Your task to perform on an android device: open the mobile data screen to see how much data has been used Image 0: 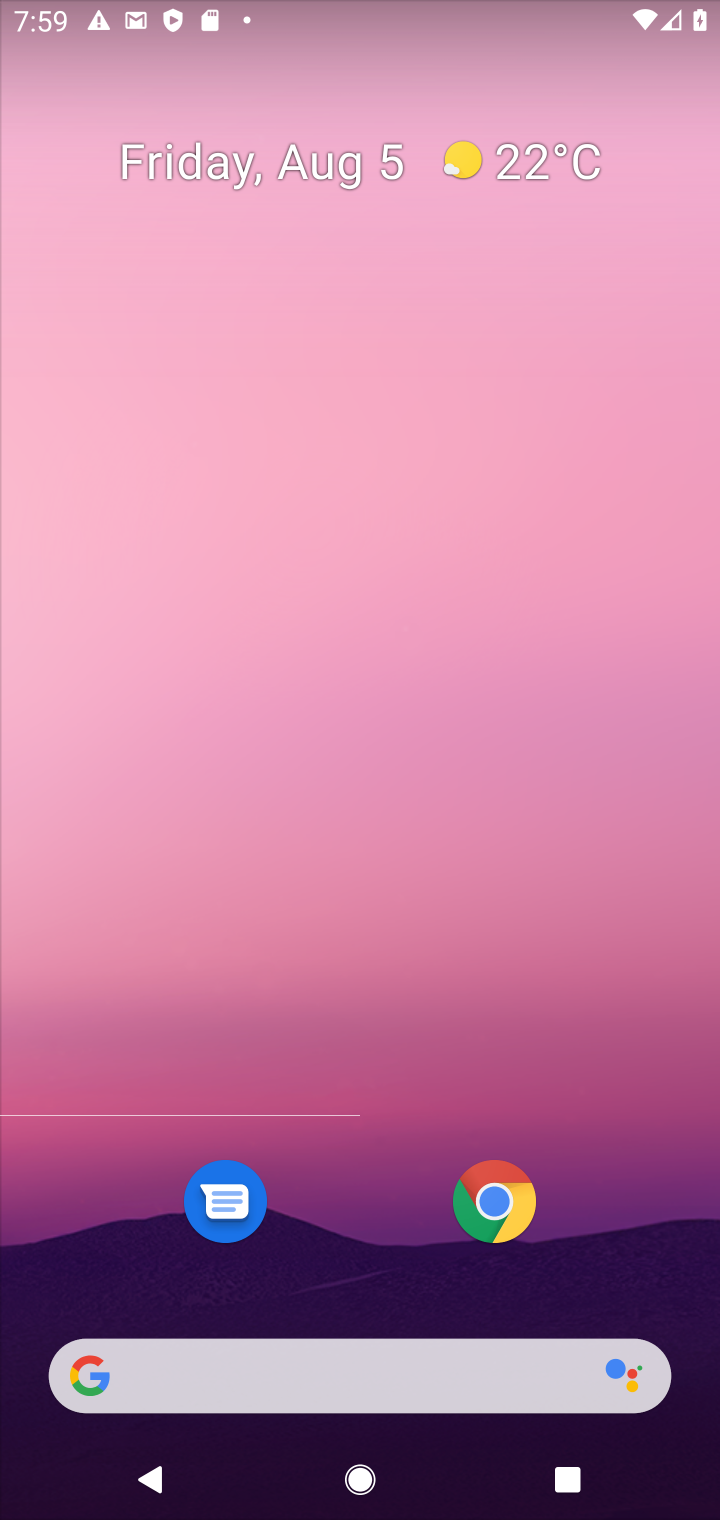
Step 0: press home button
Your task to perform on an android device: open the mobile data screen to see how much data has been used Image 1: 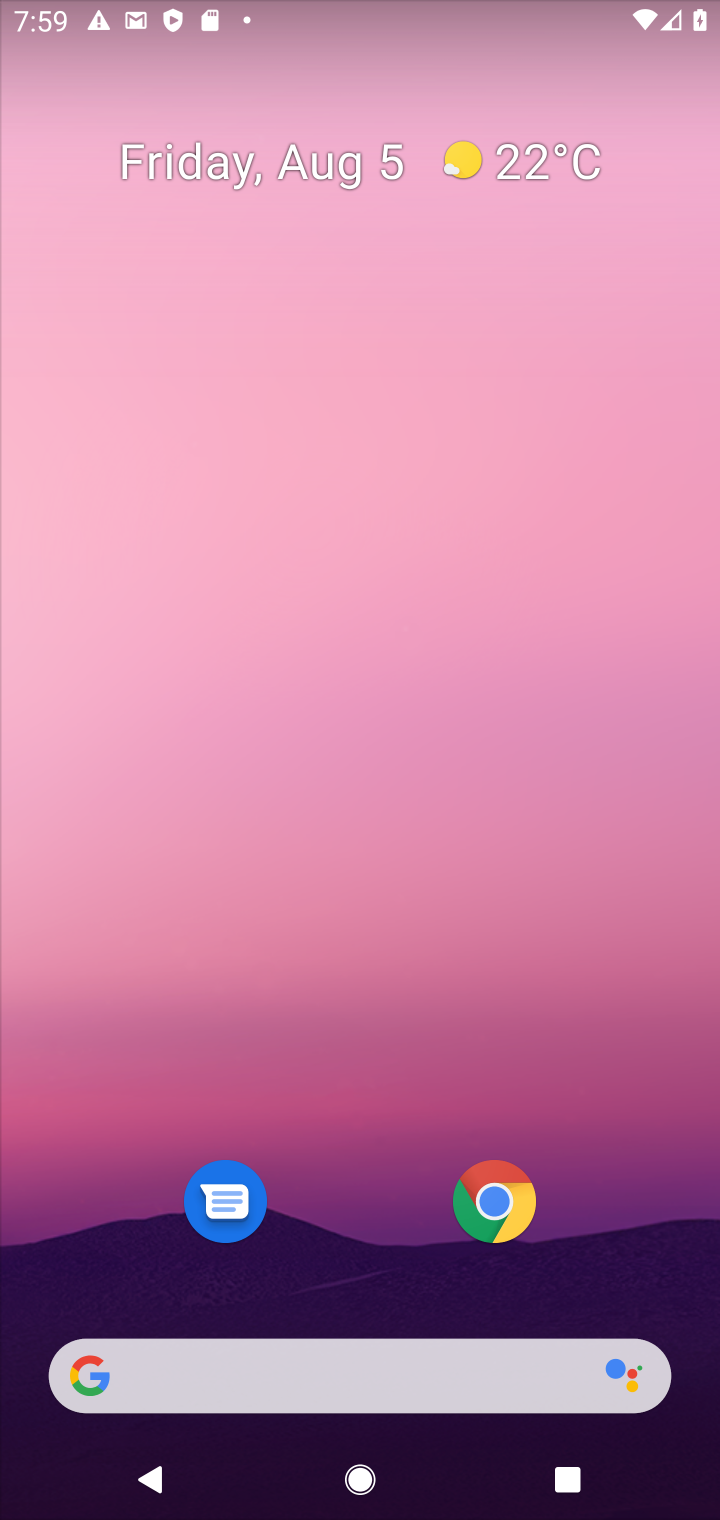
Step 1: press home button
Your task to perform on an android device: open the mobile data screen to see how much data has been used Image 2: 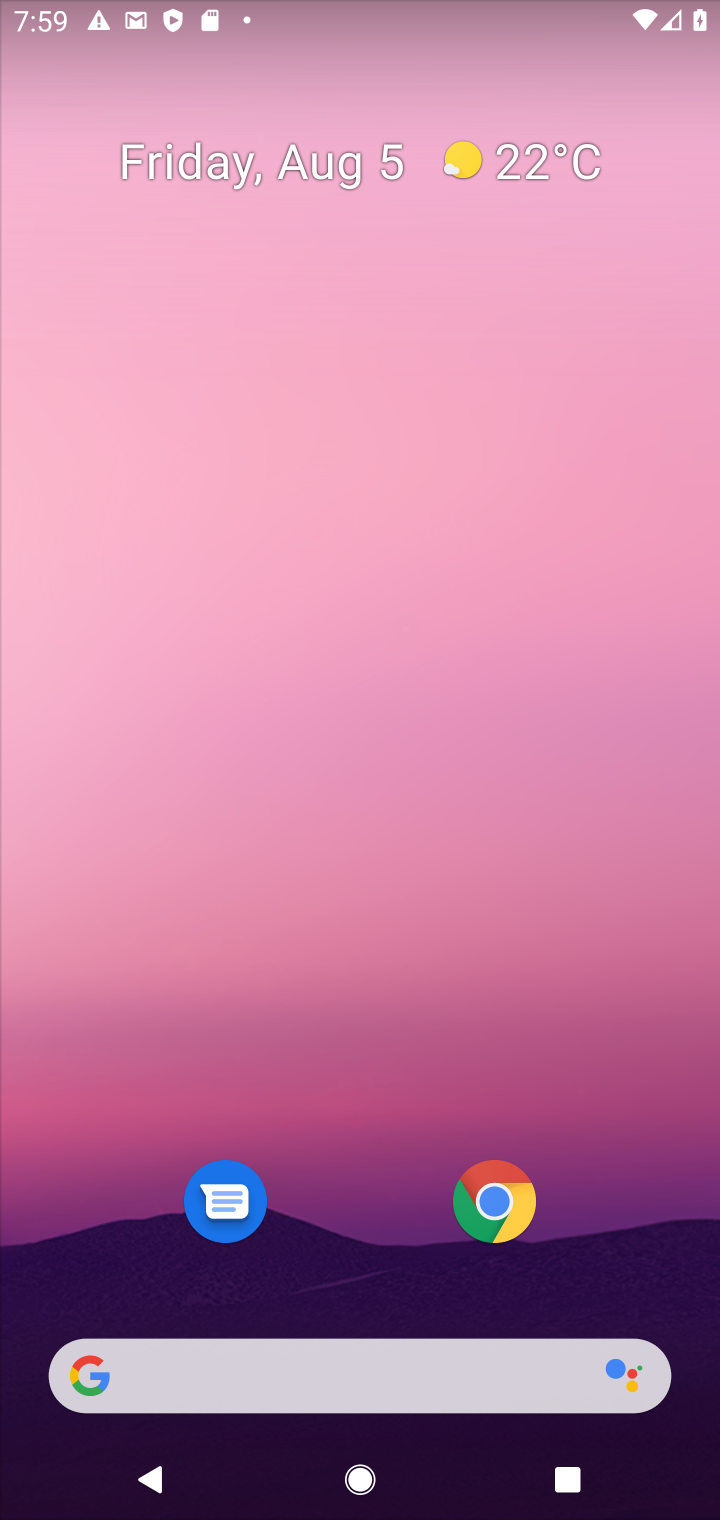
Step 2: drag from (620, 58) to (451, 930)
Your task to perform on an android device: open the mobile data screen to see how much data has been used Image 3: 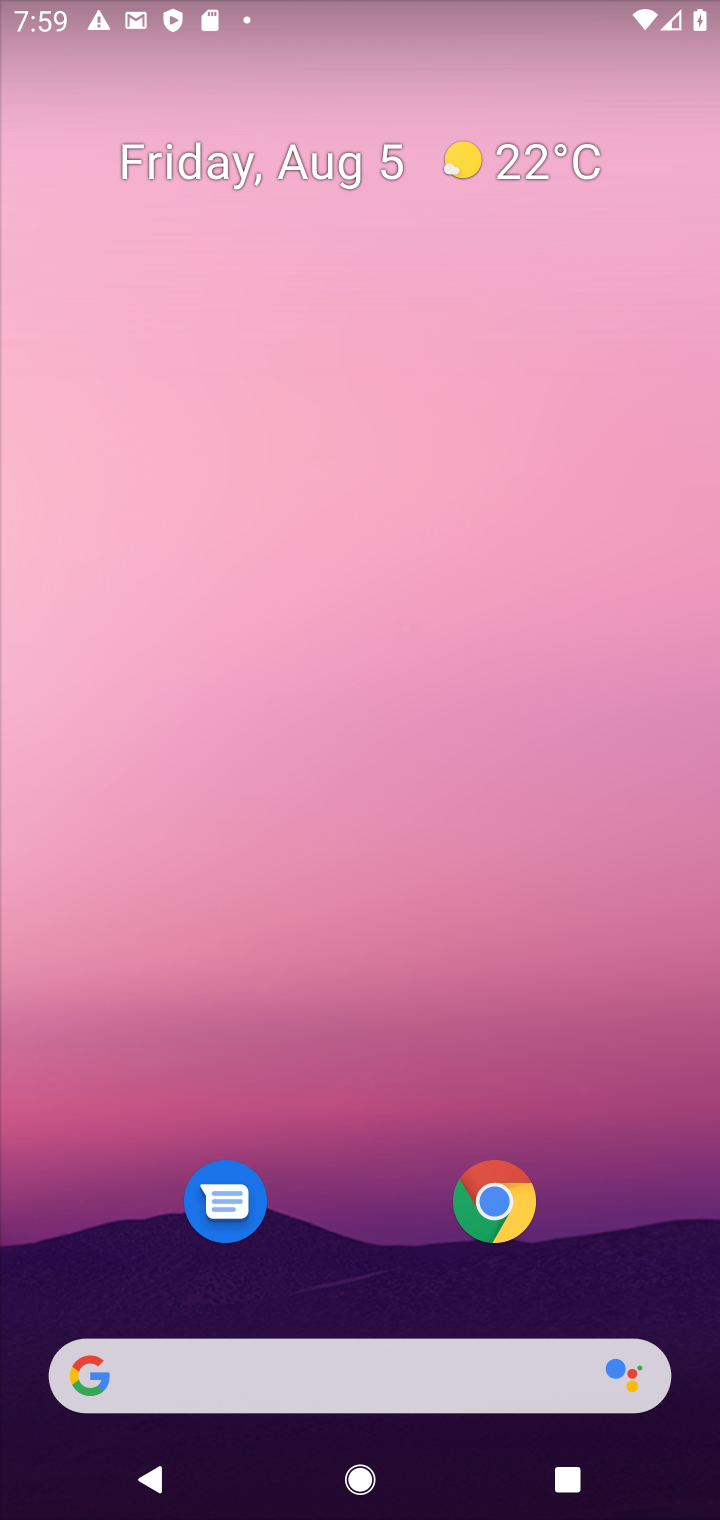
Step 3: drag from (150, 18) to (578, 1502)
Your task to perform on an android device: open the mobile data screen to see how much data has been used Image 4: 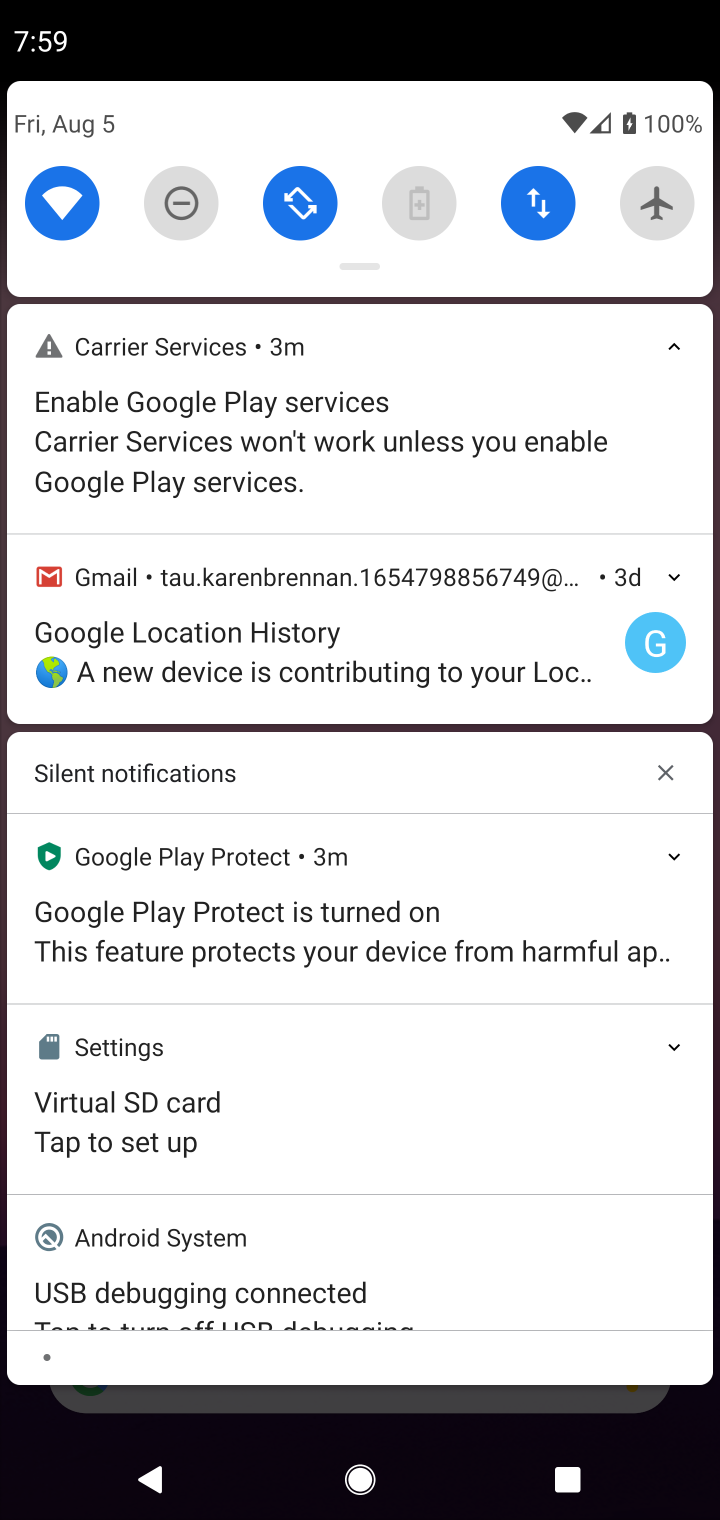
Step 4: click (528, 229)
Your task to perform on an android device: open the mobile data screen to see how much data has been used Image 5: 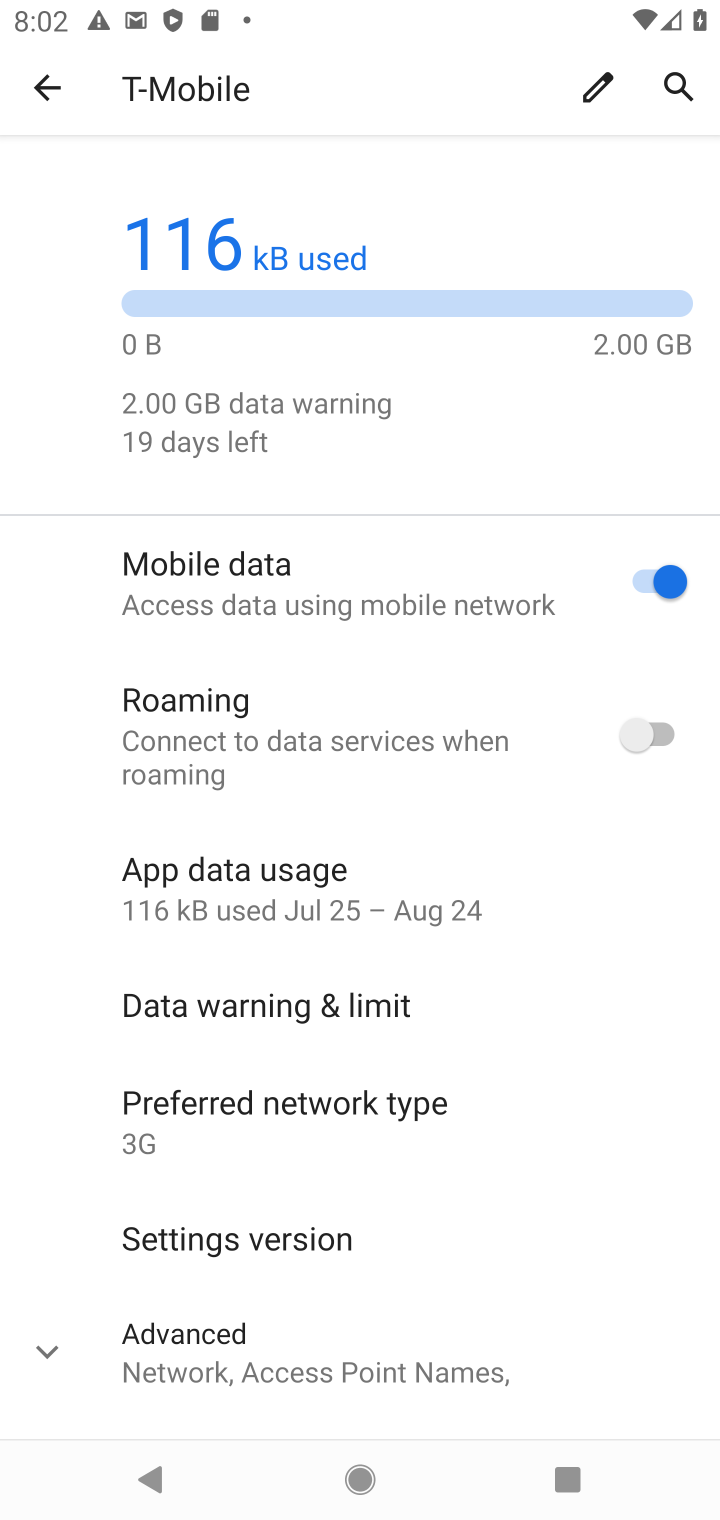
Step 5: task complete